Your task to perform on an android device: open sync settings in chrome Image 0: 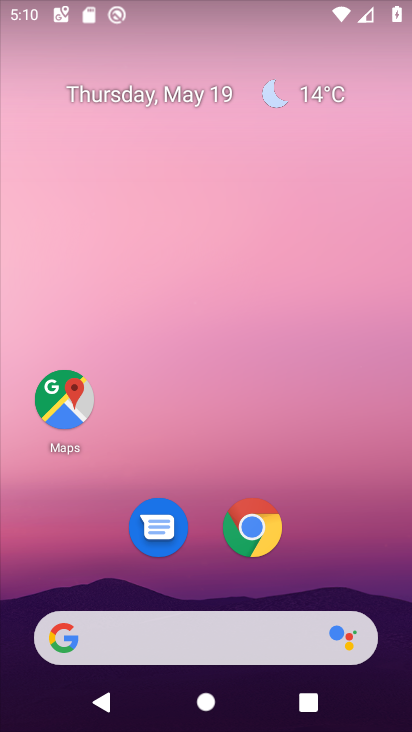
Step 0: click (263, 517)
Your task to perform on an android device: open sync settings in chrome Image 1: 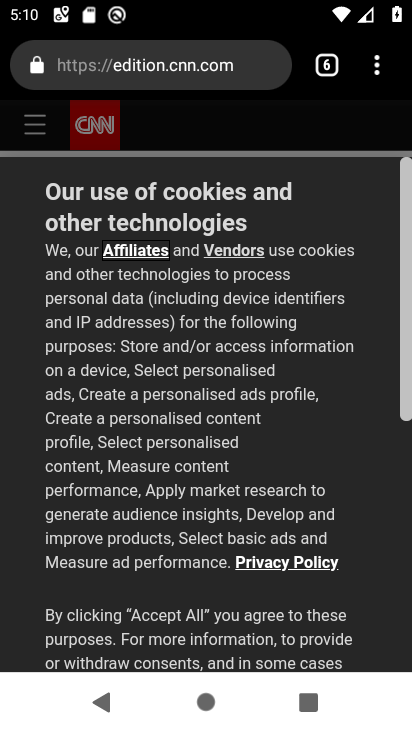
Step 1: click (379, 64)
Your task to perform on an android device: open sync settings in chrome Image 2: 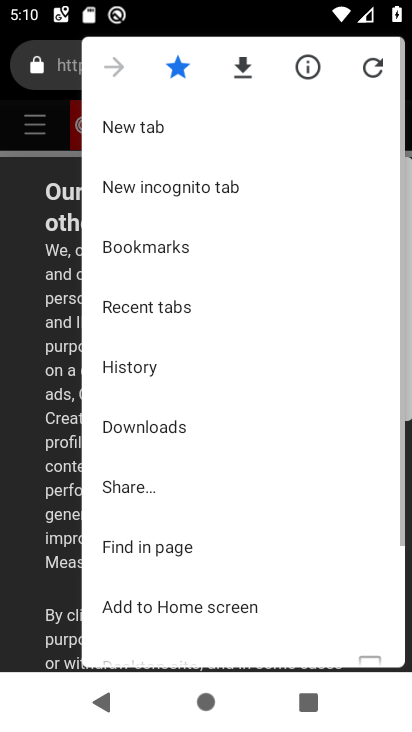
Step 2: drag from (266, 508) to (265, 139)
Your task to perform on an android device: open sync settings in chrome Image 3: 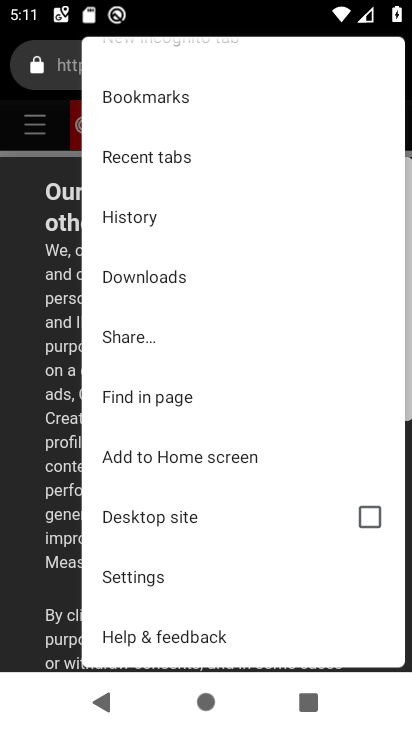
Step 3: click (184, 569)
Your task to perform on an android device: open sync settings in chrome Image 4: 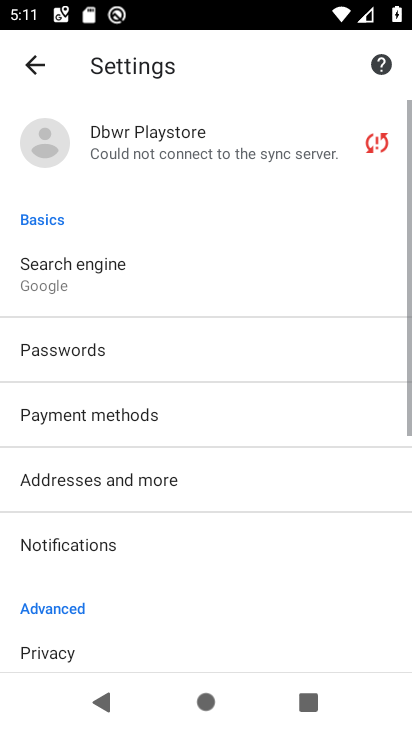
Step 4: drag from (259, 553) to (240, 143)
Your task to perform on an android device: open sync settings in chrome Image 5: 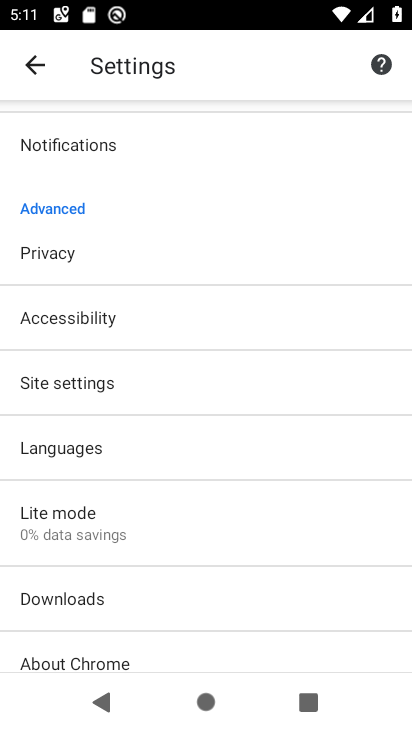
Step 5: drag from (237, 548) to (213, 177)
Your task to perform on an android device: open sync settings in chrome Image 6: 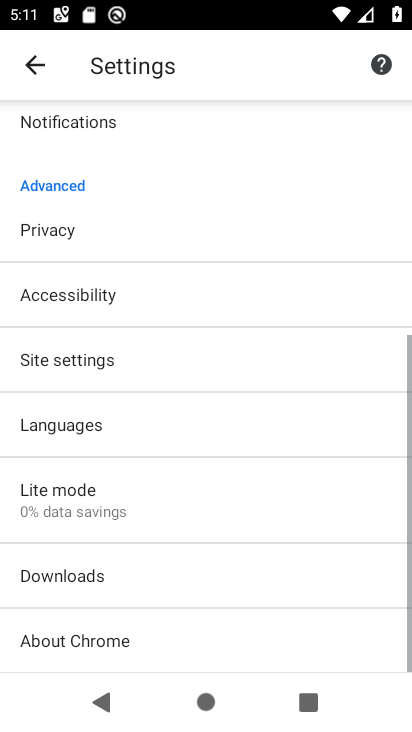
Step 6: click (158, 361)
Your task to perform on an android device: open sync settings in chrome Image 7: 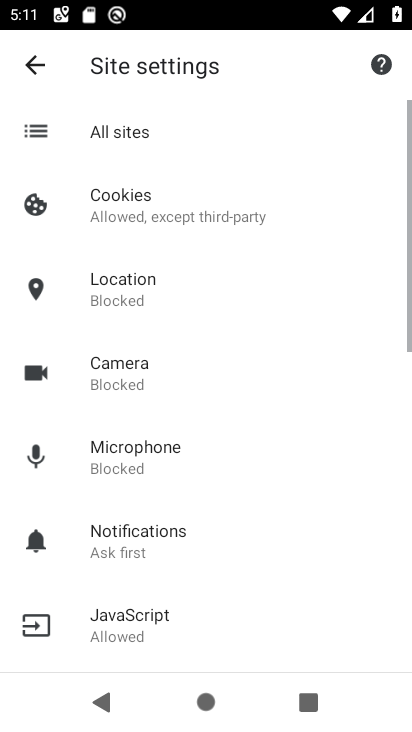
Step 7: drag from (246, 547) to (230, 133)
Your task to perform on an android device: open sync settings in chrome Image 8: 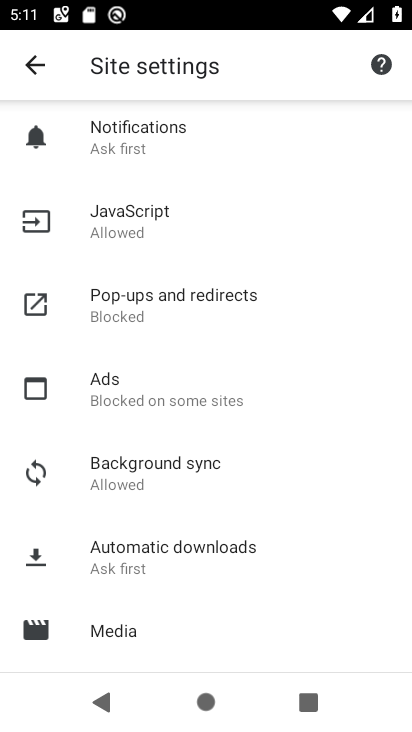
Step 8: drag from (267, 489) to (230, 231)
Your task to perform on an android device: open sync settings in chrome Image 9: 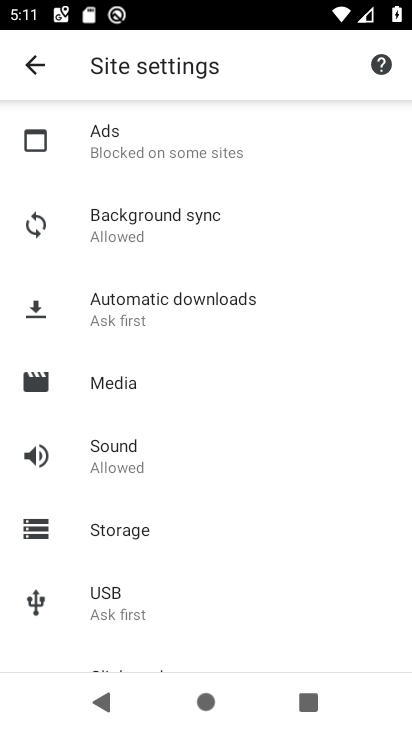
Step 9: click (178, 227)
Your task to perform on an android device: open sync settings in chrome Image 10: 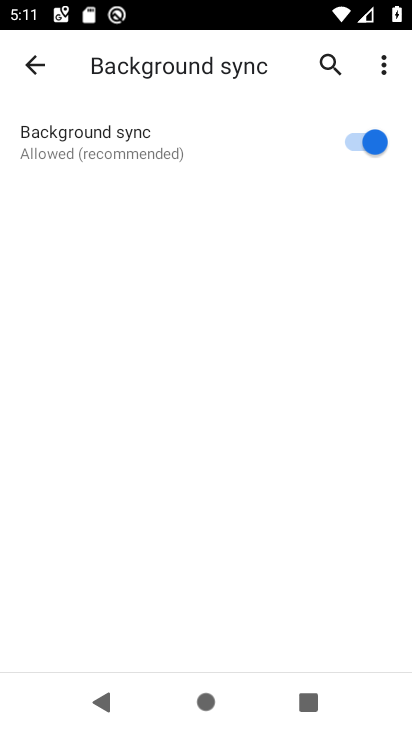
Step 10: task complete